Your task to perform on an android device: Find coffee shops on Maps Image 0: 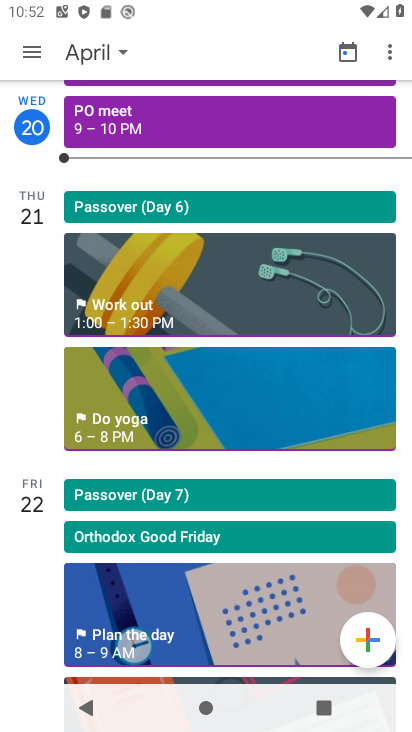
Step 0: press home button
Your task to perform on an android device: Find coffee shops on Maps Image 1: 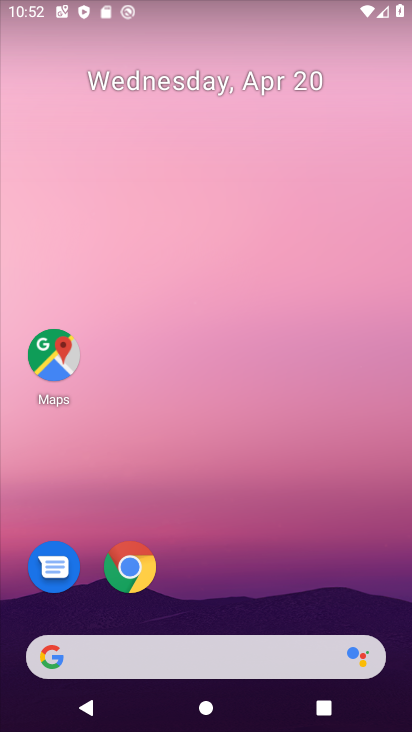
Step 1: drag from (229, 588) to (246, 16)
Your task to perform on an android device: Find coffee shops on Maps Image 2: 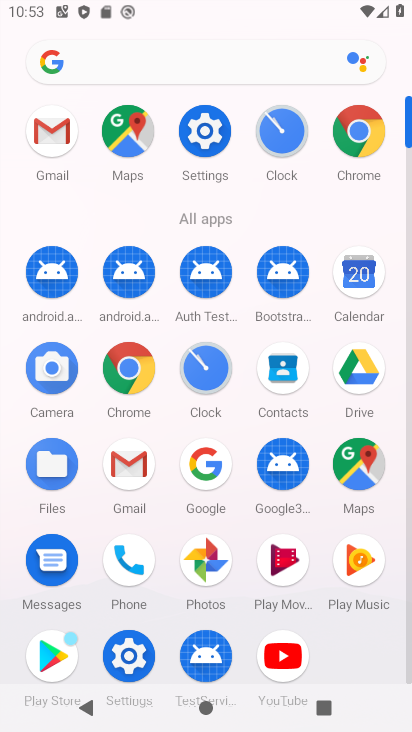
Step 2: click (134, 146)
Your task to perform on an android device: Find coffee shops on Maps Image 3: 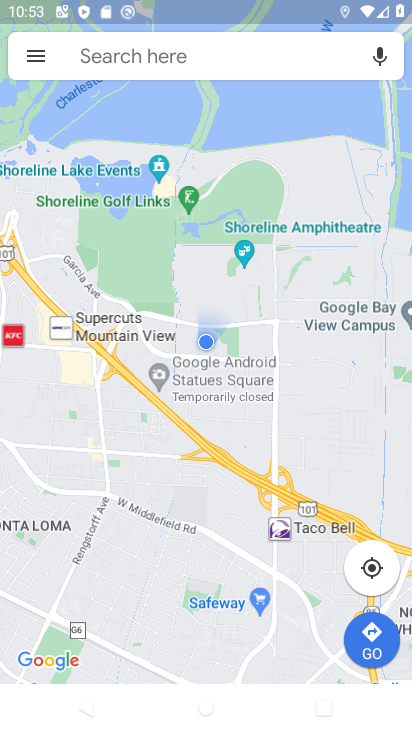
Step 3: click (123, 56)
Your task to perform on an android device: Find coffee shops on Maps Image 4: 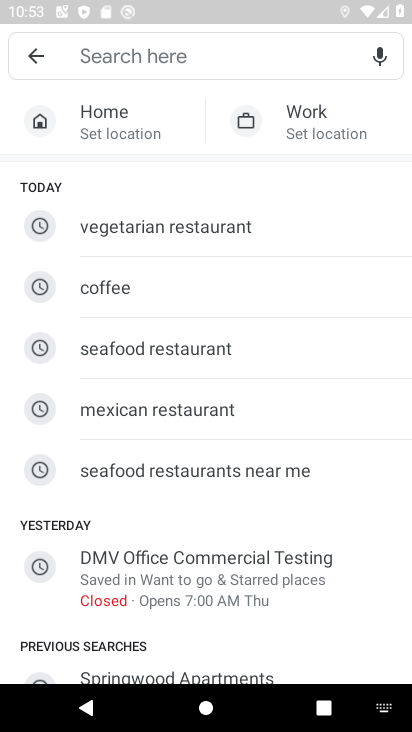
Step 4: type "coffee shops"
Your task to perform on an android device: Find coffee shops on Maps Image 5: 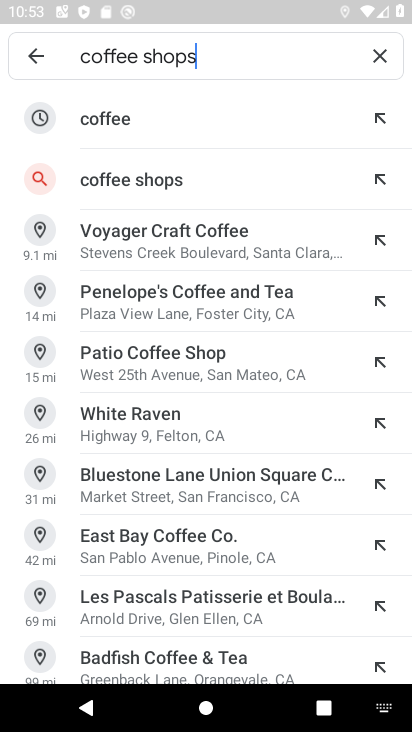
Step 5: click (128, 177)
Your task to perform on an android device: Find coffee shops on Maps Image 6: 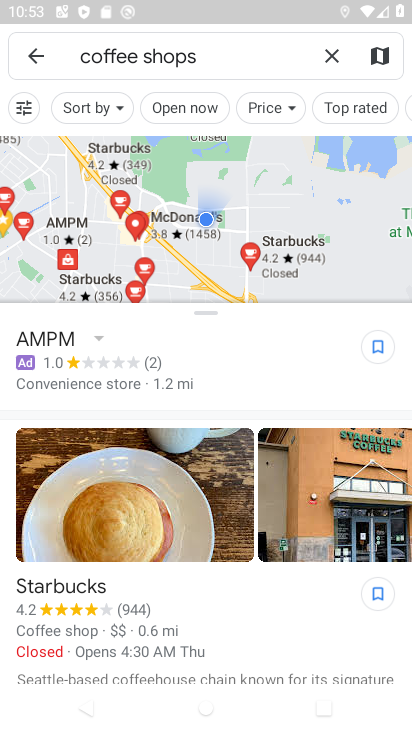
Step 6: task complete